Your task to perform on an android device: change keyboard looks Image 0: 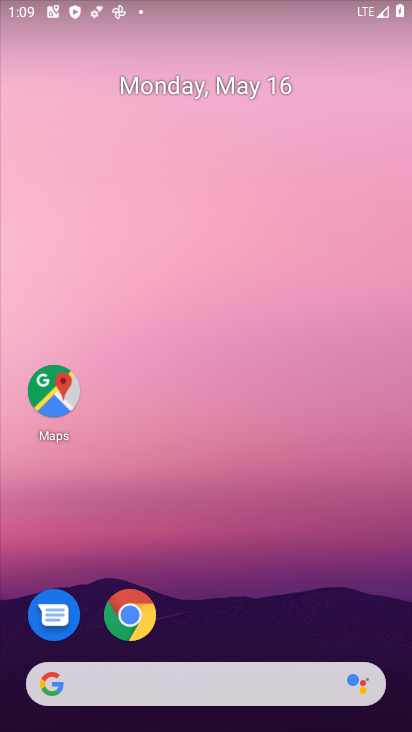
Step 0: drag from (220, 698) to (259, 8)
Your task to perform on an android device: change keyboard looks Image 1: 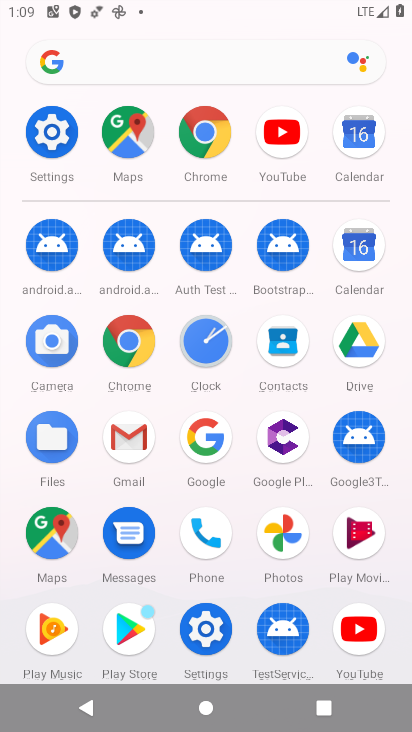
Step 1: click (29, 136)
Your task to perform on an android device: change keyboard looks Image 2: 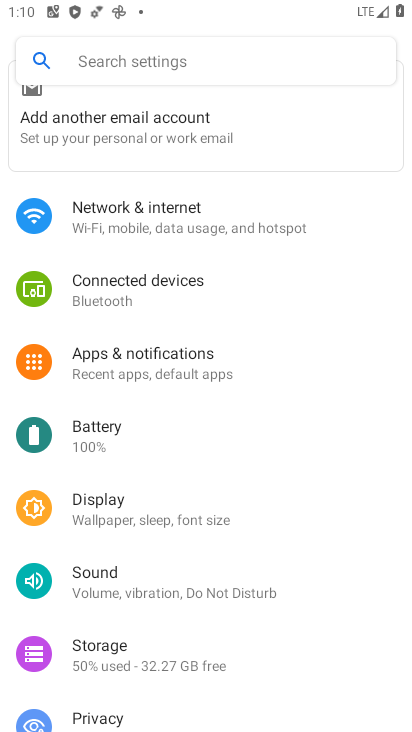
Step 2: drag from (302, 685) to (294, 195)
Your task to perform on an android device: change keyboard looks Image 3: 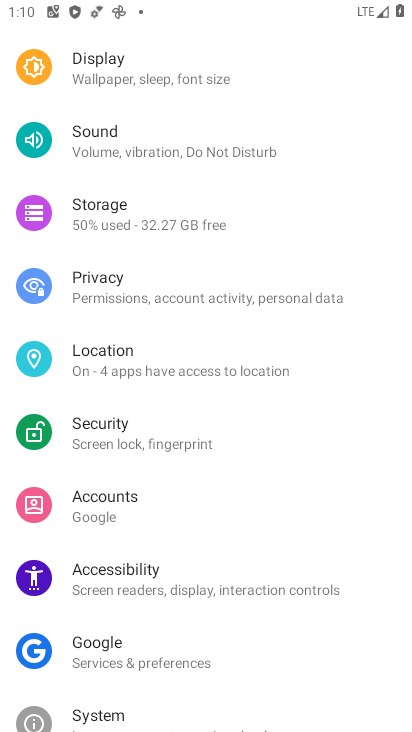
Step 3: drag from (207, 668) to (242, 145)
Your task to perform on an android device: change keyboard looks Image 4: 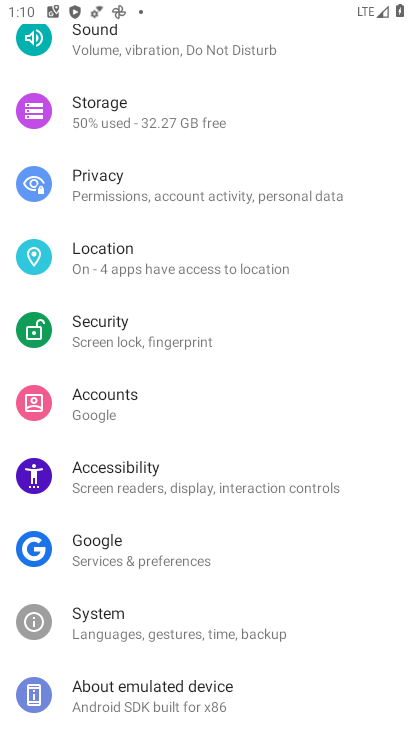
Step 4: click (219, 641)
Your task to perform on an android device: change keyboard looks Image 5: 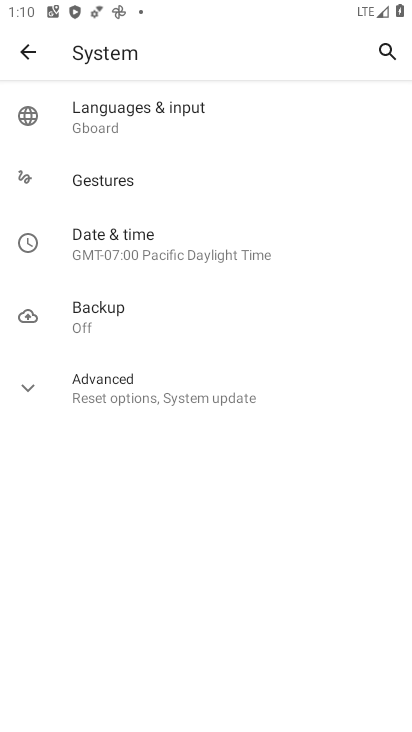
Step 5: click (208, 126)
Your task to perform on an android device: change keyboard looks Image 6: 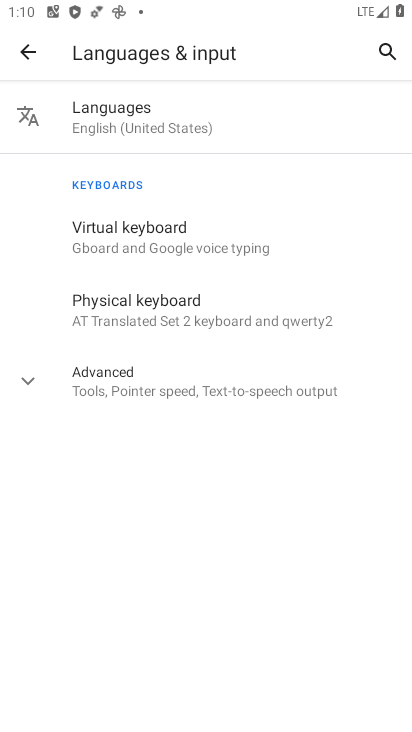
Step 6: click (211, 249)
Your task to perform on an android device: change keyboard looks Image 7: 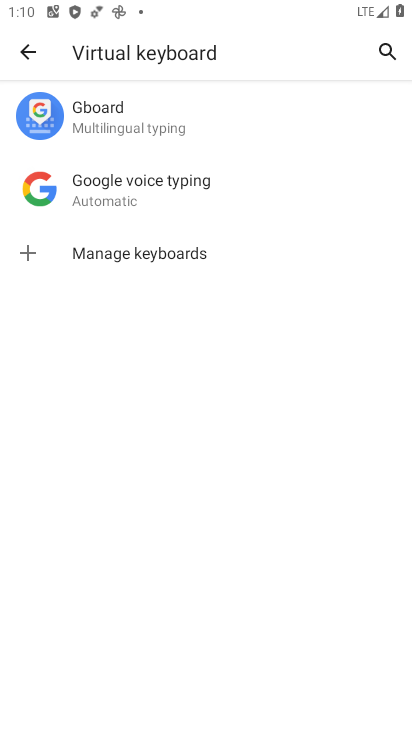
Step 7: click (193, 129)
Your task to perform on an android device: change keyboard looks Image 8: 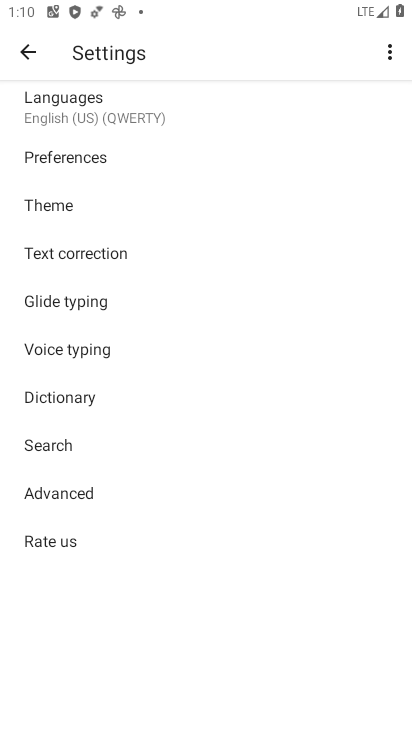
Step 8: click (44, 180)
Your task to perform on an android device: change keyboard looks Image 9: 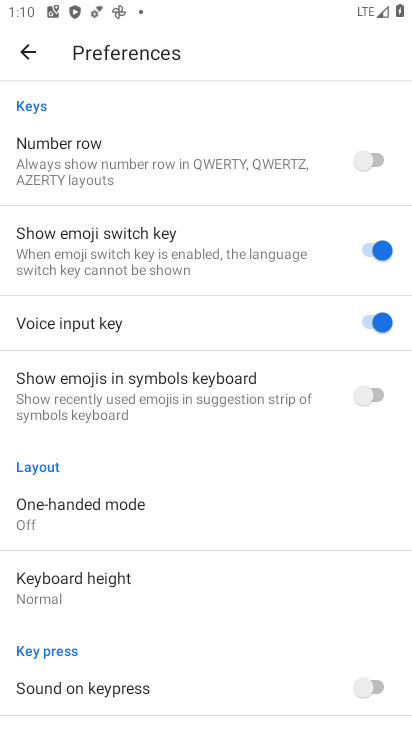
Step 9: press back button
Your task to perform on an android device: change keyboard looks Image 10: 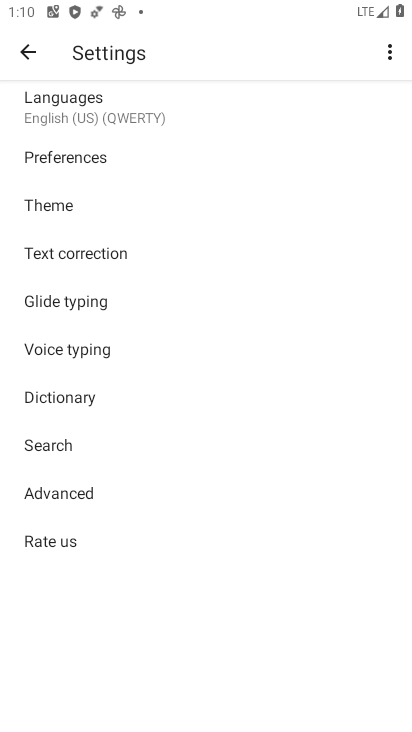
Step 10: click (105, 115)
Your task to perform on an android device: change keyboard looks Image 11: 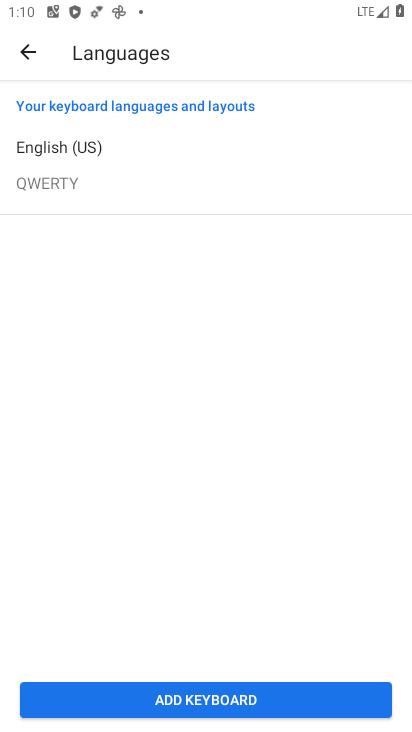
Step 11: press back button
Your task to perform on an android device: change keyboard looks Image 12: 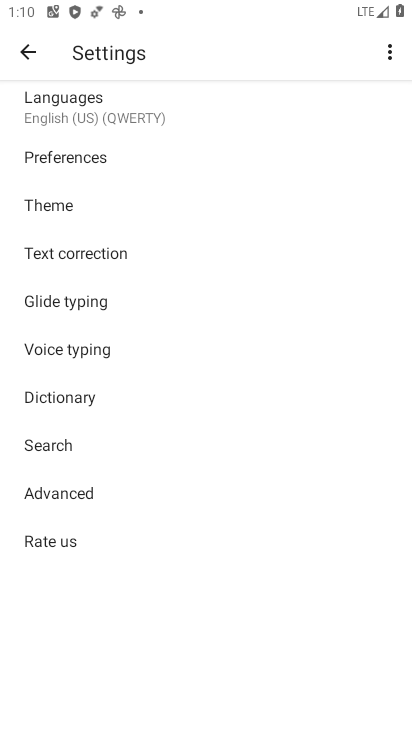
Step 12: click (59, 210)
Your task to perform on an android device: change keyboard looks Image 13: 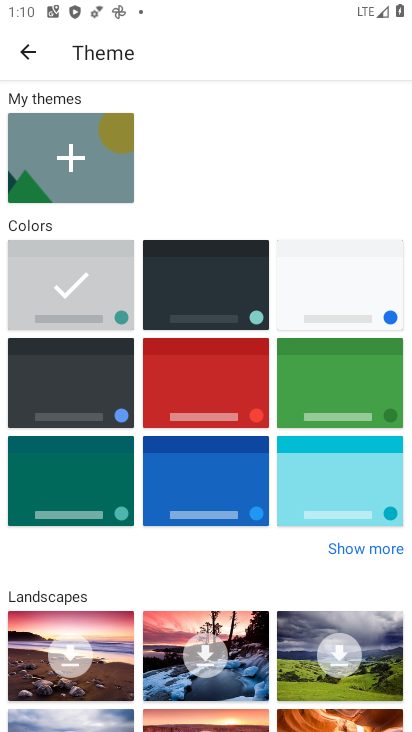
Step 13: click (184, 397)
Your task to perform on an android device: change keyboard looks Image 14: 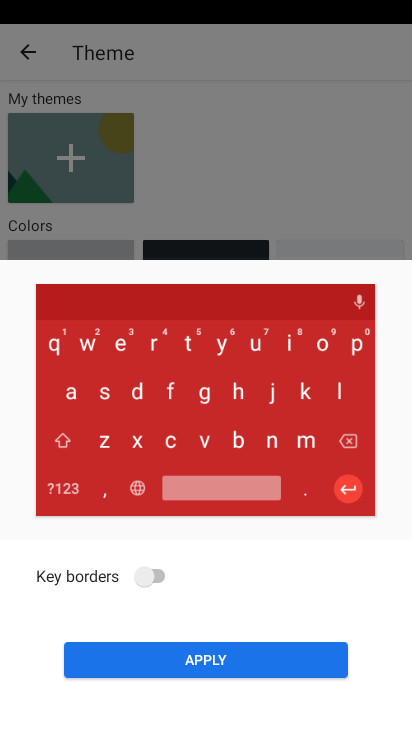
Step 14: click (209, 664)
Your task to perform on an android device: change keyboard looks Image 15: 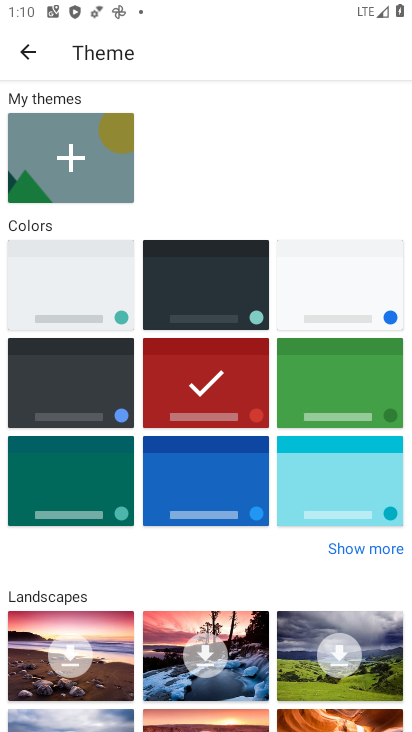
Step 15: task complete